Your task to perform on an android device: install app "Fetch Rewards" Image 0: 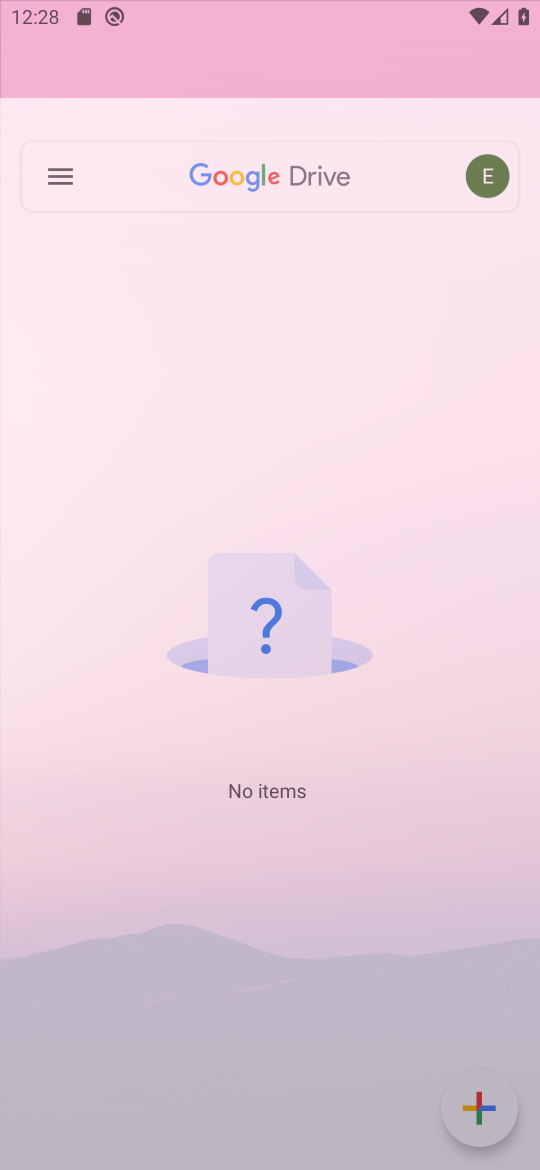
Step 0: press home button
Your task to perform on an android device: install app "Fetch Rewards" Image 1: 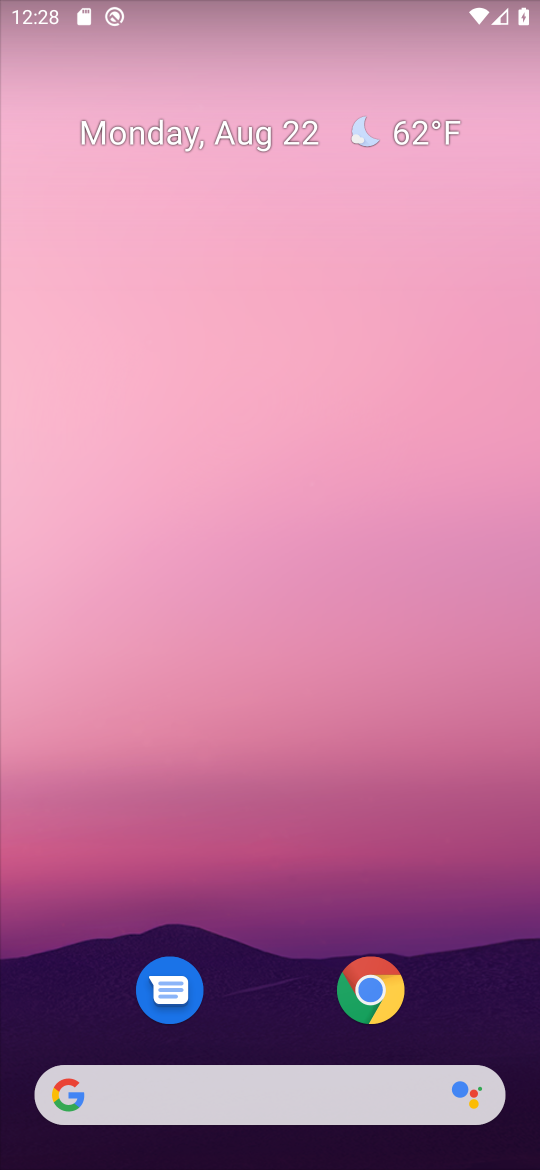
Step 1: drag from (298, 873) to (274, 312)
Your task to perform on an android device: install app "Fetch Rewards" Image 2: 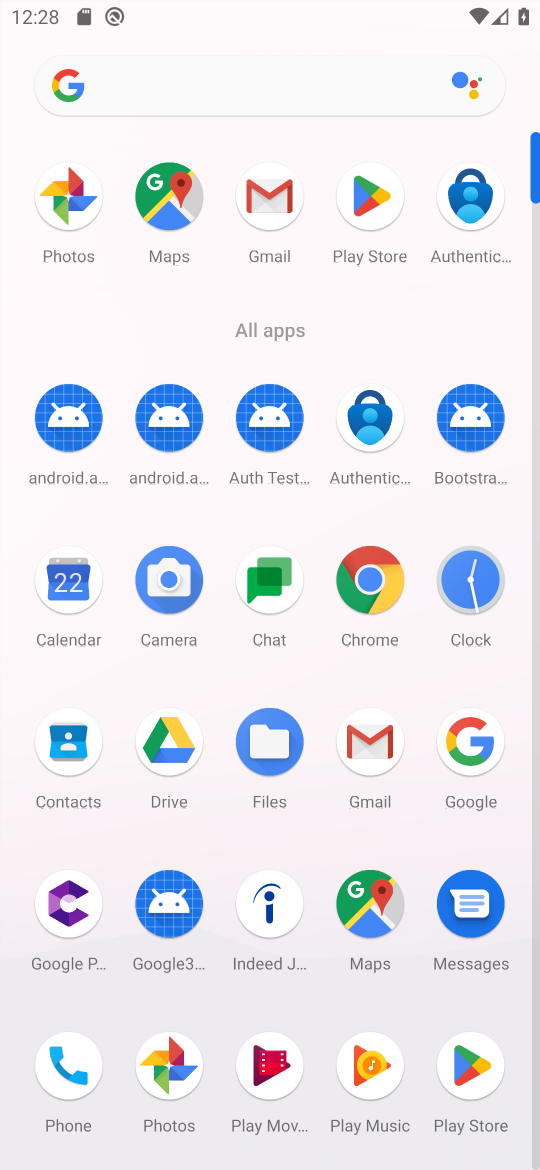
Step 2: click (369, 181)
Your task to perform on an android device: install app "Fetch Rewards" Image 3: 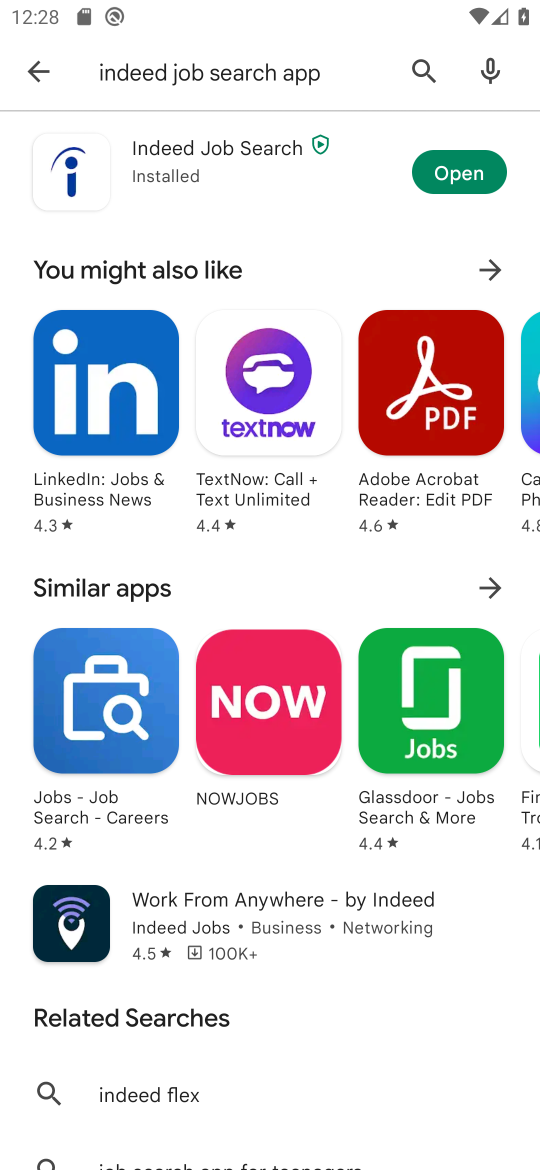
Step 3: click (427, 72)
Your task to perform on an android device: install app "Fetch Rewards" Image 4: 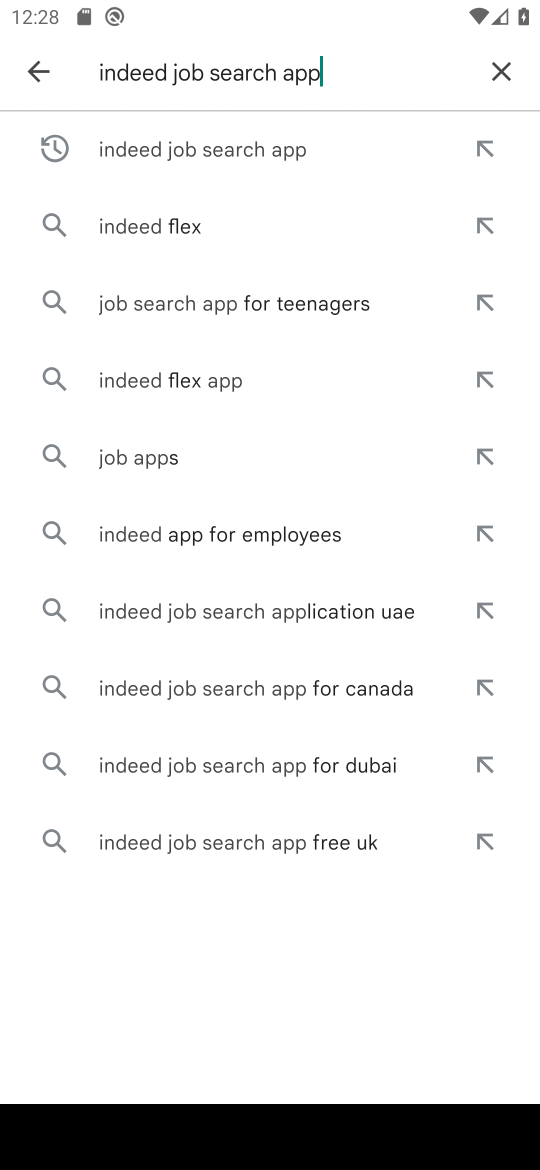
Step 4: click (530, 81)
Your task to perform on an android device: install app "Fetch Rewards" Image 5: 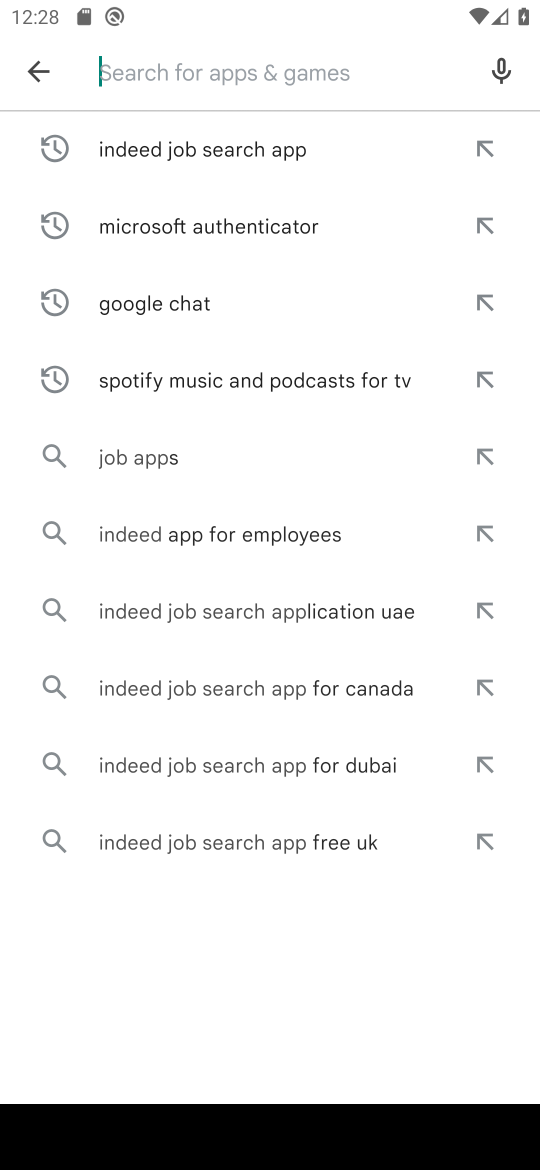
Step 5: click (501, 80)
Your task to perform on an android device: install app "Fetch Rewards" Image 6: 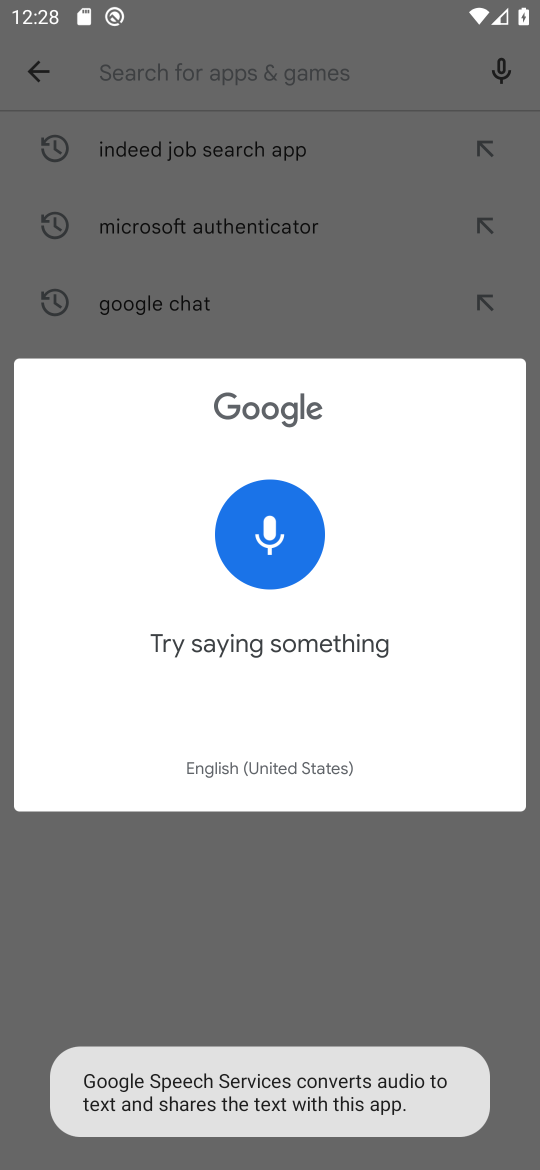
Step 6: click (233, 92)
Your task to perform on an android device: install app "Fetch Rewards" Image 7: 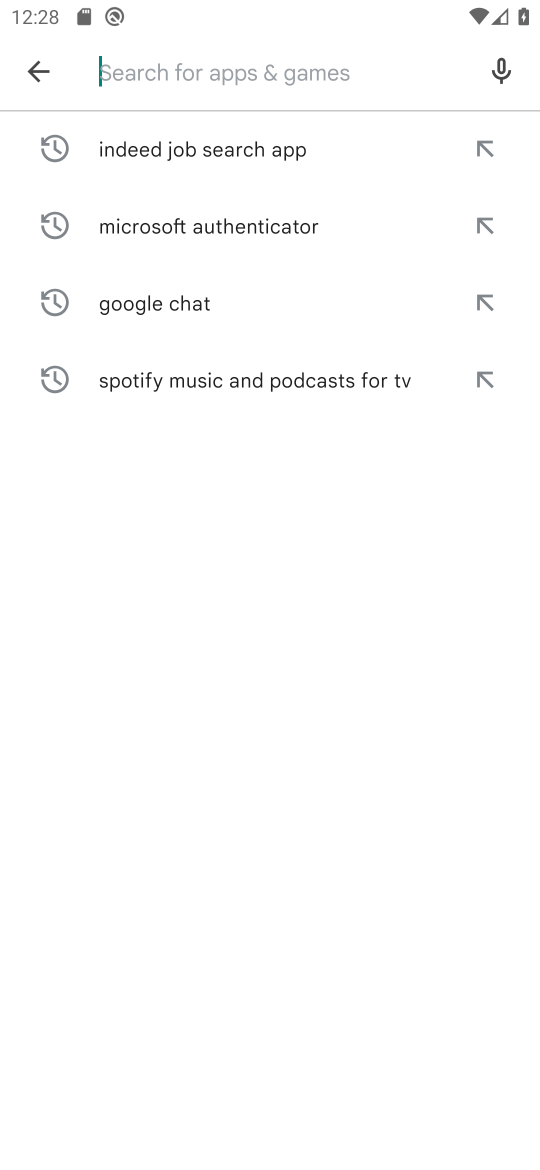
Step 7: type "Fetch Rewards"
Your task to perform on an android device: install app "Fetch Rewards" Image 8: 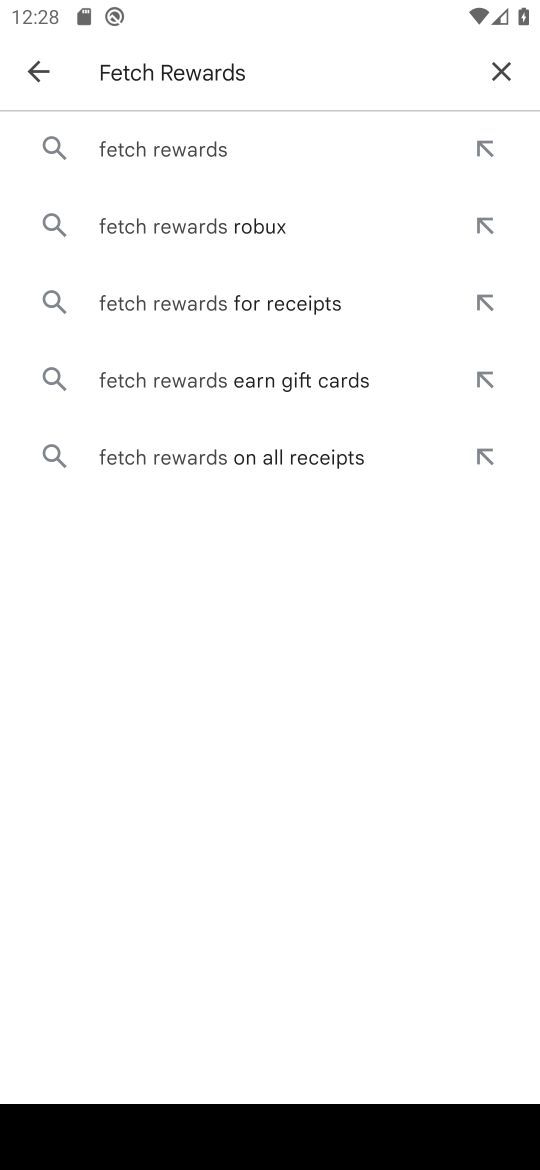
Step 8: click (211, 142)
Your task to perform on an android device: install app "Fetch Rewards" Image 9: 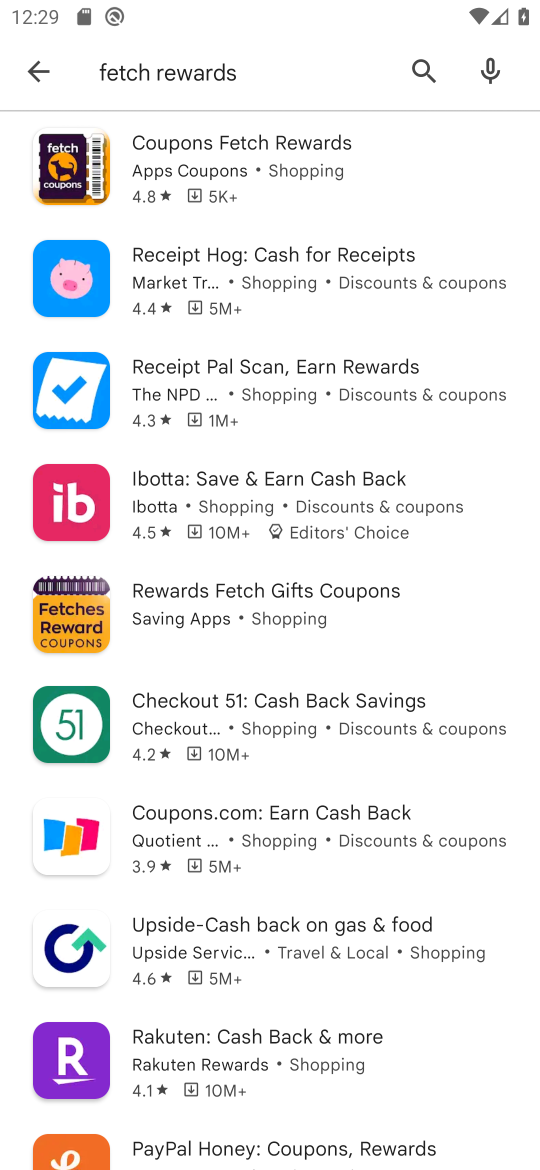
Step 9: task complete